Your task to perform on an android device: Open Android settings Image 0: 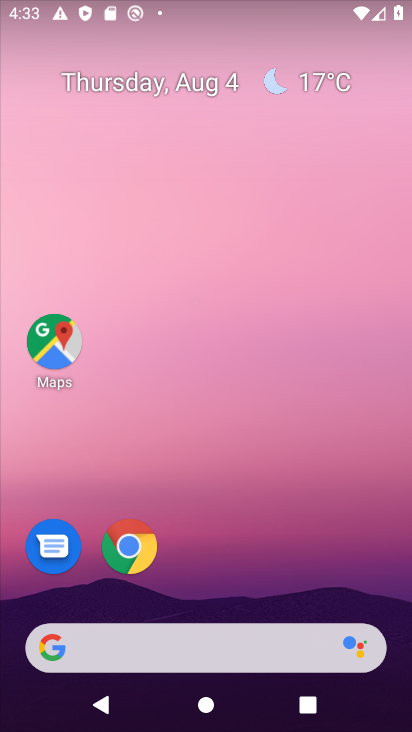
Step 0: drag from (218, 402) to (231, 95)
Your task to perform on an android device: Open Android settings Image 1: 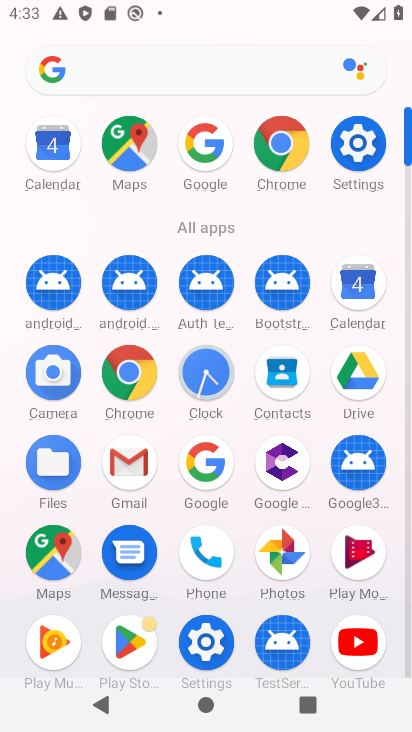
Step 1: click (358, 134)
Your task to perform on an android device: Open Android settings Image 2: 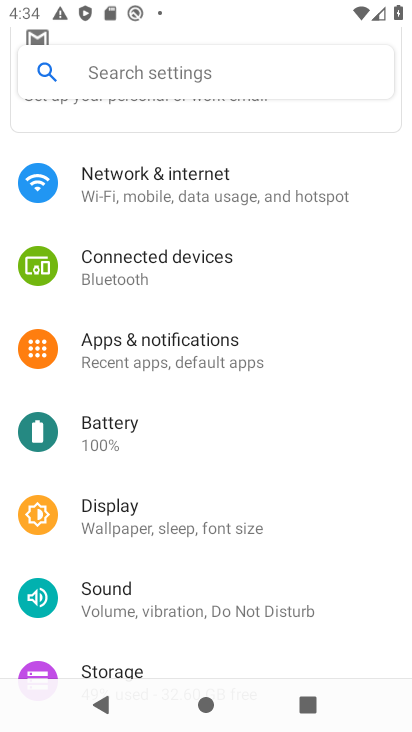
Step 2: drag from (176, 641) to (191, 172)
Your task to perform on an android device: Open Android settings Image 3: 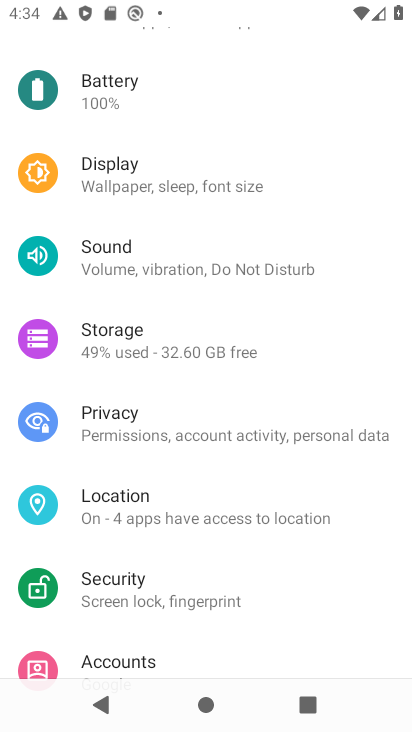
Step 3: drag from (217, 613) to (139, 202)
Your task to perform on an android device: Open Android settings Image 4: 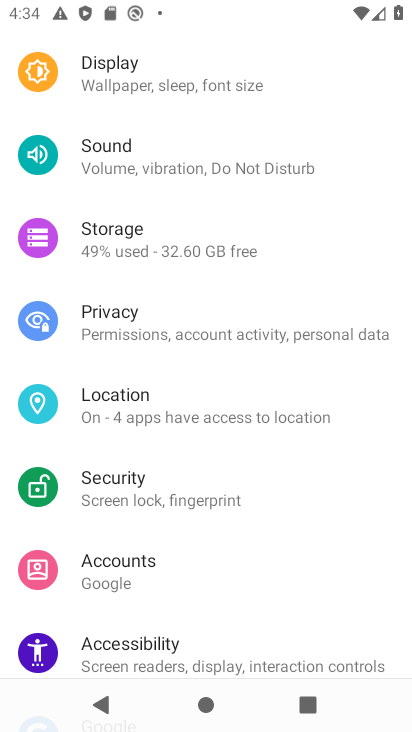
Step 4: click (287, 640)
Your task to perform on an android device: Open Android settings Image 5: 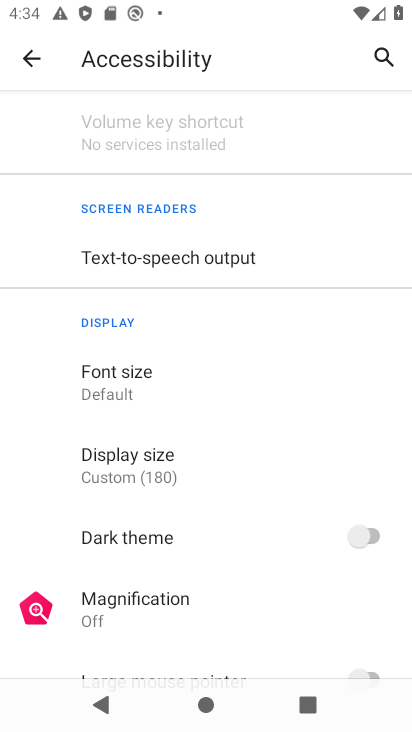
Step 5: click (27, 64)
Your task to perform on an android device: Open Android settings Image 6: 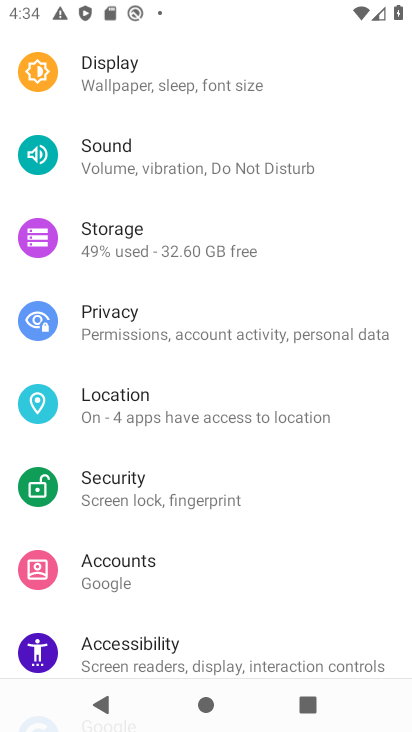
Step 6: drag from (251, 577) to (187, 280)
Your task to perform on an android device: Open Android settings Image 7: 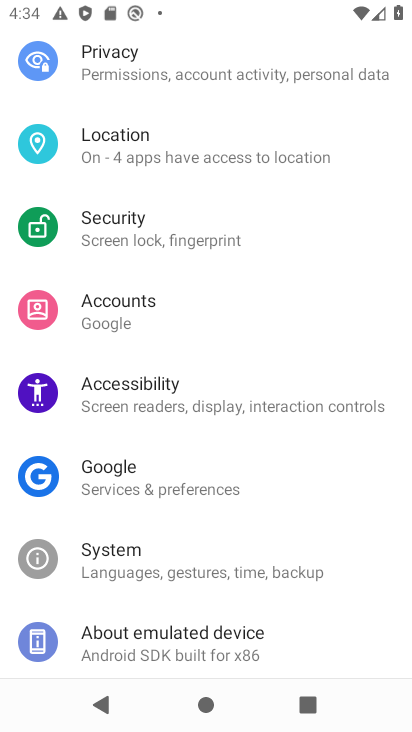
Step 7: click (207, 641)
Your task to perform on an android device: Open Android settings Image 8: 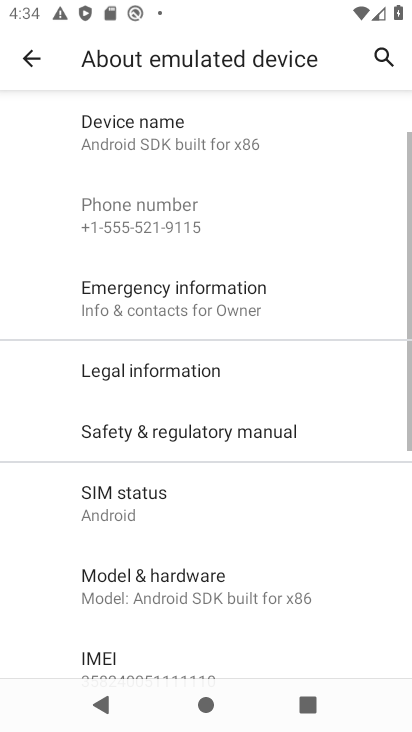
Step 8: drag from (242, 467) to (247, 309)
Your task to perform on an android device: Open Android settings Image 9: 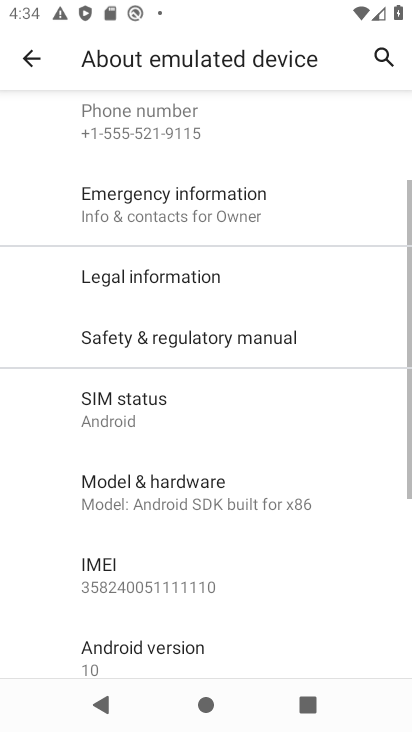
Step 9: click (148, 656)
Your task to perform on an android device: Open Android settings Image 10: 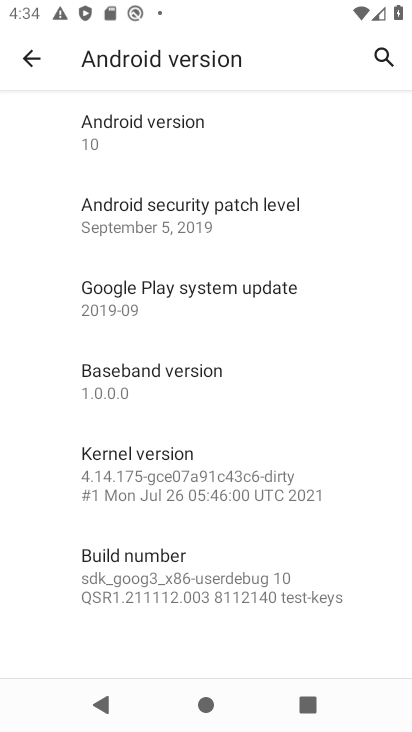
Step 10: task complete